Your task to perform on an android device: Open wifi settings Image 0: 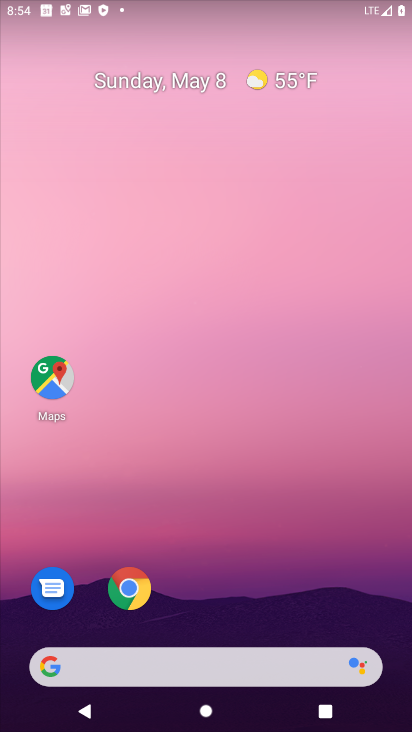
Step 0: drag from (352, 609) to (268, 0)
Your task to perform on an android device: Open wifi settings Image 1: 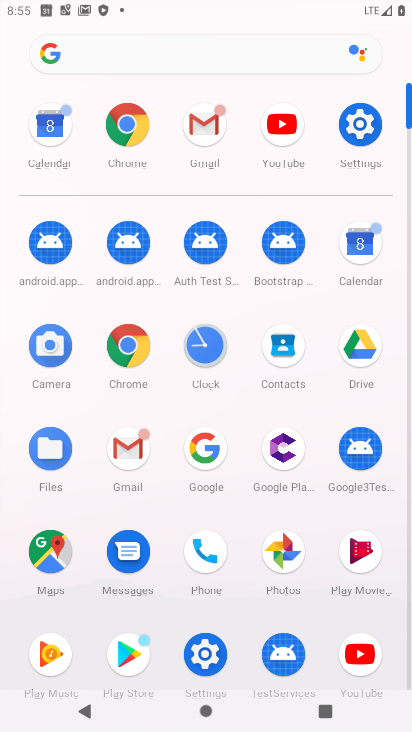
Step 1: click (210, 664)
Your task to perform on an android device: Open wifi settings Image 2: 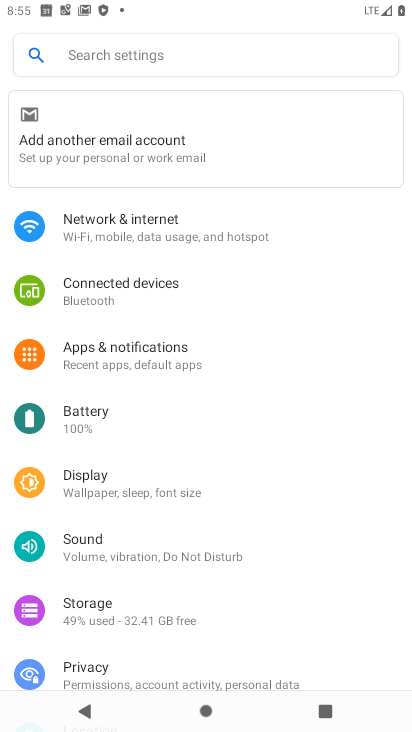
Step 2: click (181, 215)
Your task to perform on an android device: Open wifi settings Image 3: 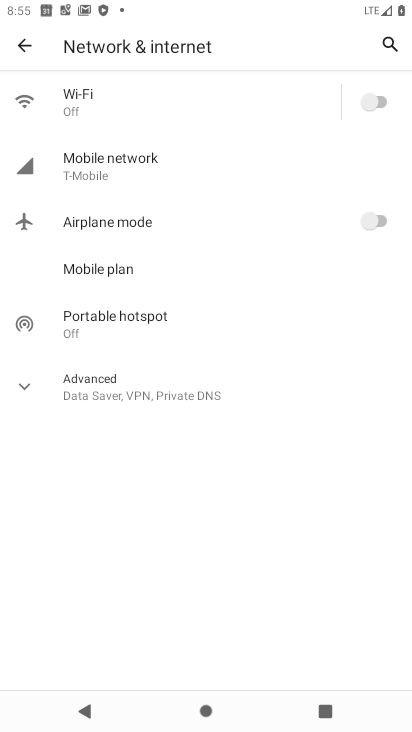
Step 3: click (174, 105)
Your task to perform on an android device: Open wifi settings Image 4: 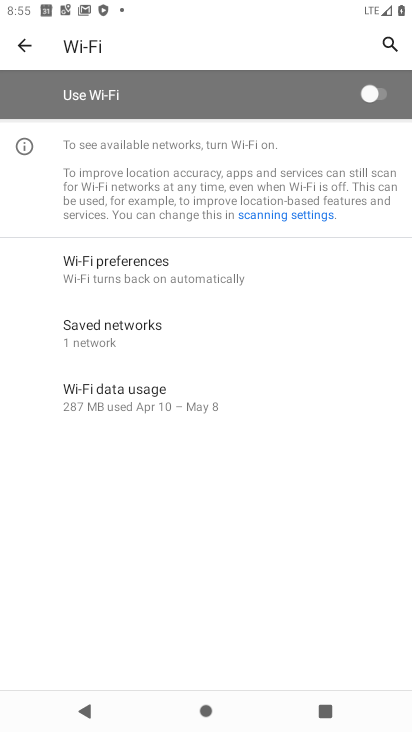
Step 4: task complete